Your task to perform on an android device: Open Chrome and go to settings Image 0: 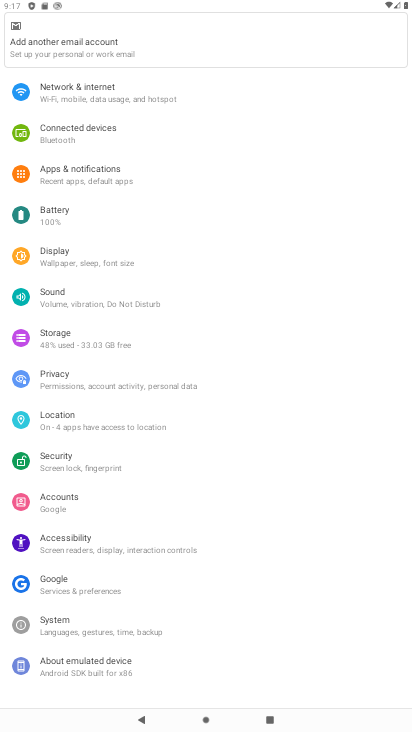
Step 0: press home button
Your task to perform on an android device: Open Chrome and go to settings Image 1: 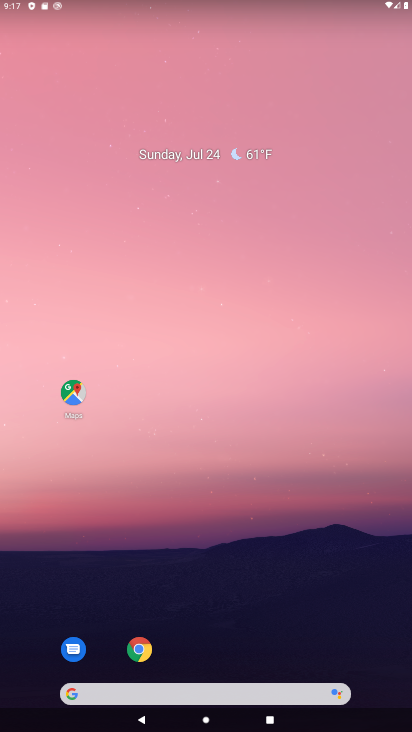
Step 1: drag from (227, 658) to (191, 111)
Your task to perform on an android device: Open Chrome and go to settings Image 2: 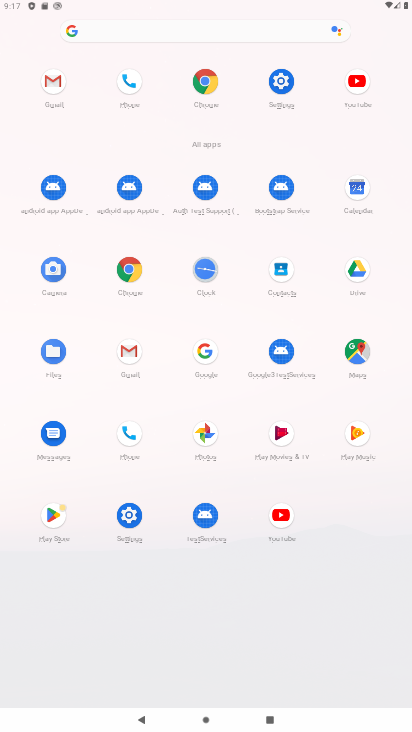
Step 2: click (128, 262)
Your task to perform on an android device: Open Chrome and go to settings Image 3: 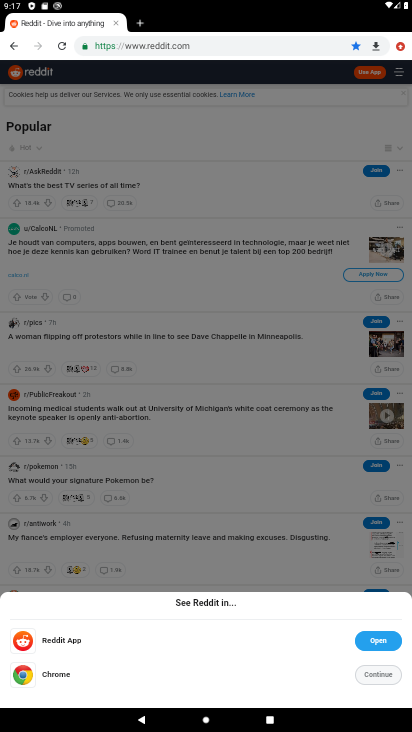
Step 3: task complete